Your task to perform on an android device: toggle location history Image 0: 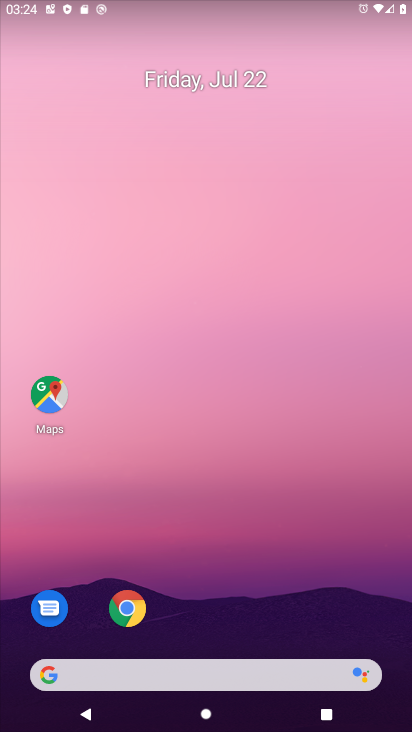
Step 0: drag from (257, 592) to (410, 19)
Your task to perform on an android device: toggle location history Image 1: 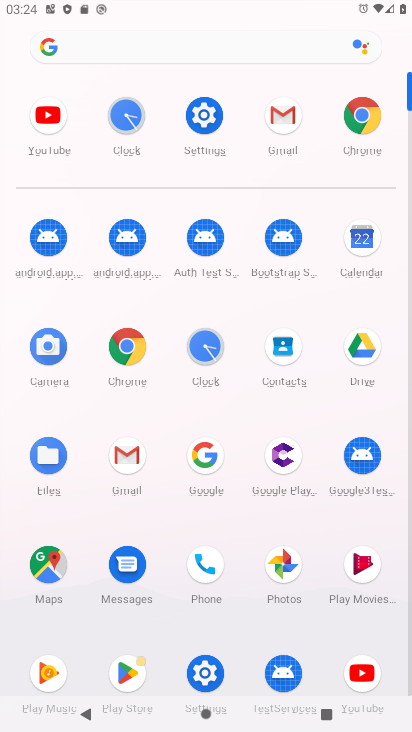
Step 1: click (202, 661)
Your task to perform on an android device: toggle location history Image 2: 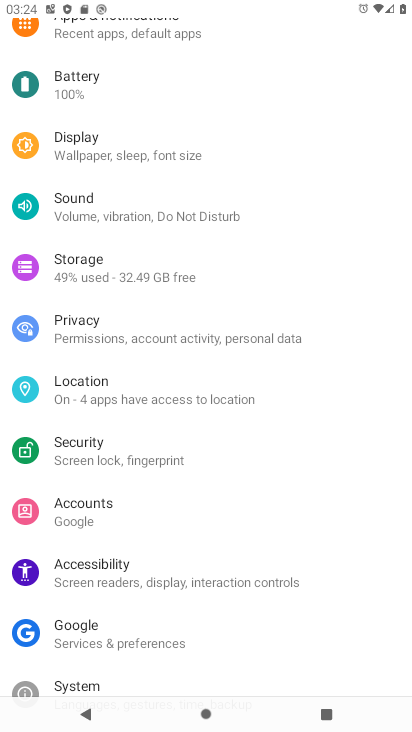
Step 2: click (201, 387)
Your task to perform on an android device: toggle location history Image 3: 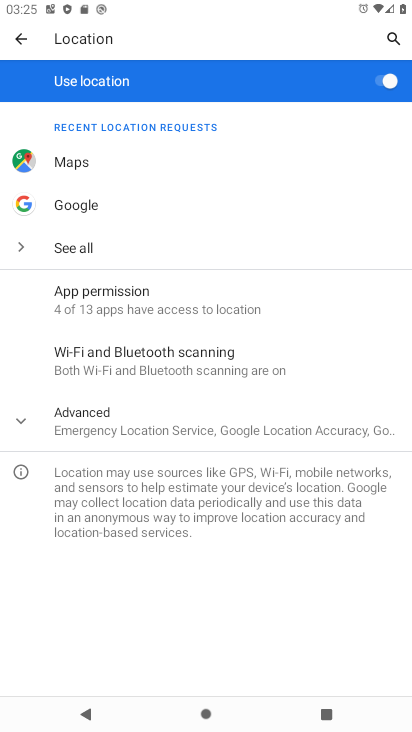
Step 3: click (146, 428)
Your task to perform on an android device: toggle location history Image 4: 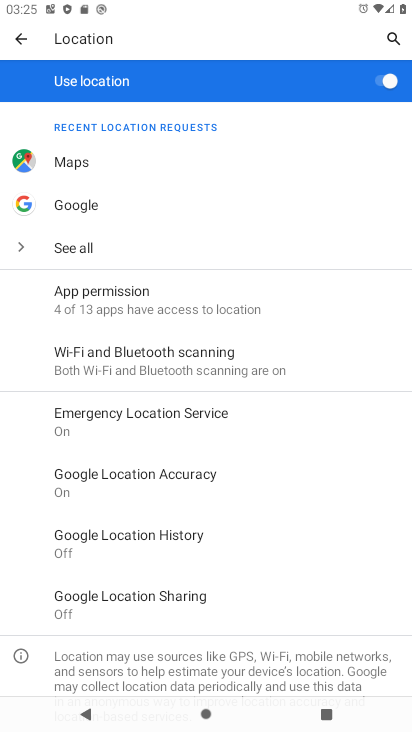
Step 4: click (136, 539)
Your task to perform on an android device: toggle location history Image 5: 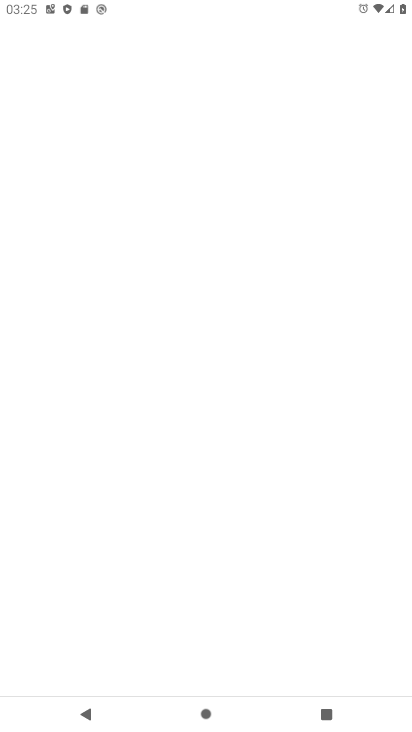
Step 5: click (136, 539)
Your task to perform on an android device: toggle location history Image 6: 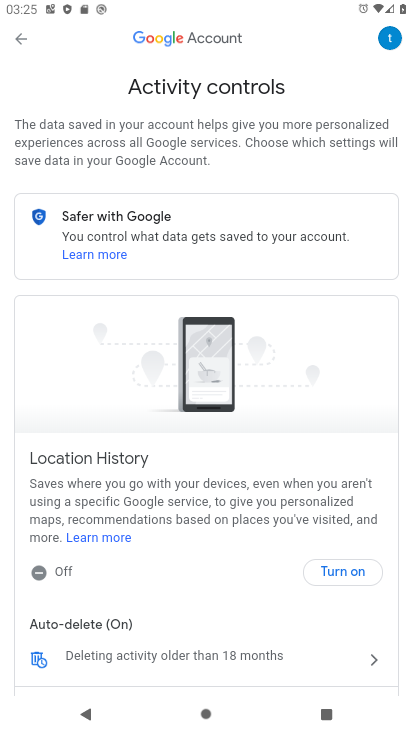
Step 6: click (348, 569)
Your task to perform on an android device: toggle location history Image 7: 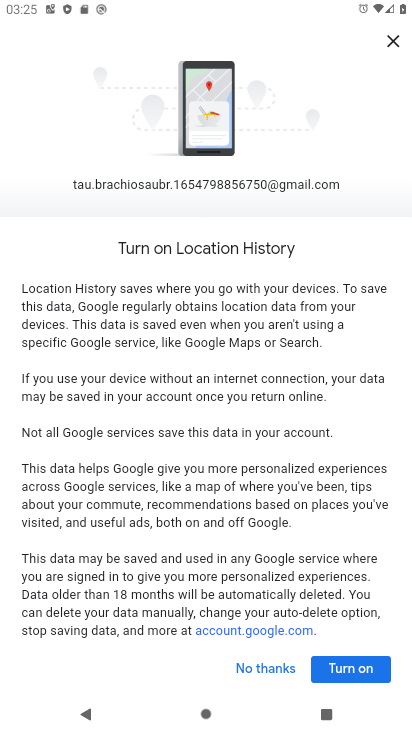
Step 7: click (354, 667)
Your task to perform on an android device: toggle location history Image 8: 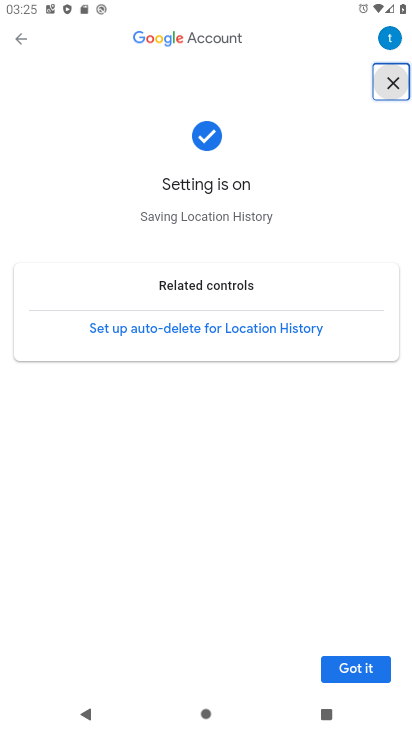
Step 8: click (354, 667)
Your task to perform on an android device: toggle location history Image 9: 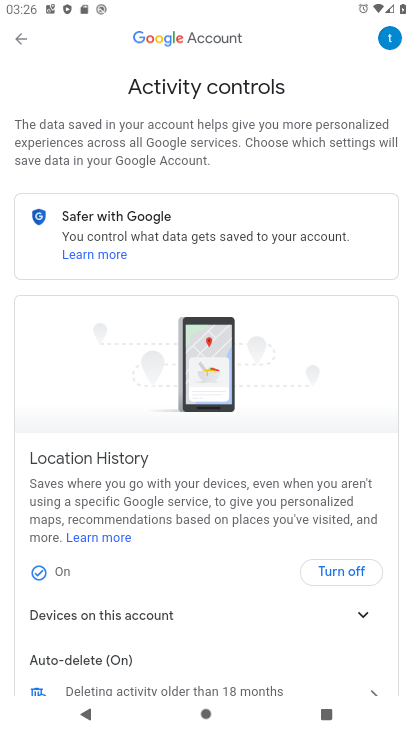
Step 9: task complete